Your task to perform on an android device: turn off location Image 0: 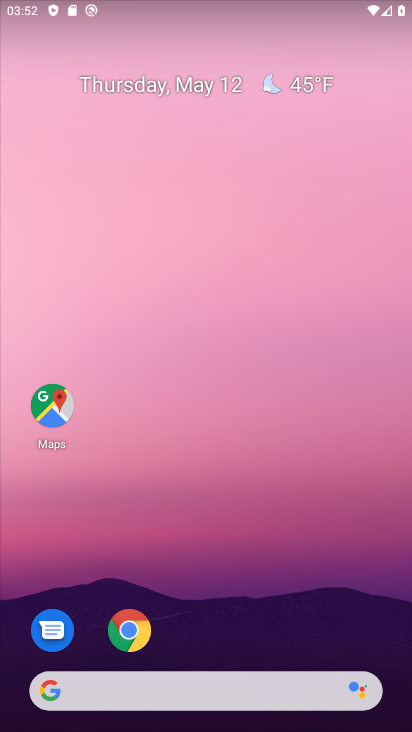
Step 0: drag from (252, 629) to (378, 87)
Your task to perform on an android device: turn off location Image 1: 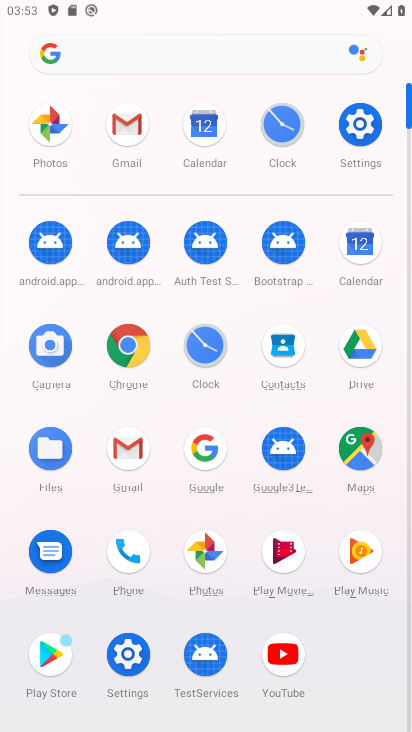
Step 1: click (125, 663)
Your task to perform on an android device: turn off location Image 2: 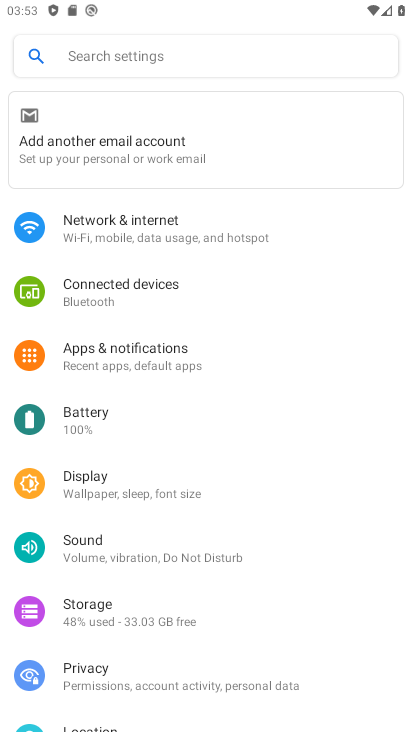
Step 2: drag from (149, 596) to (206, 230)
Your task to perform on an android device: turn off location Image 3: 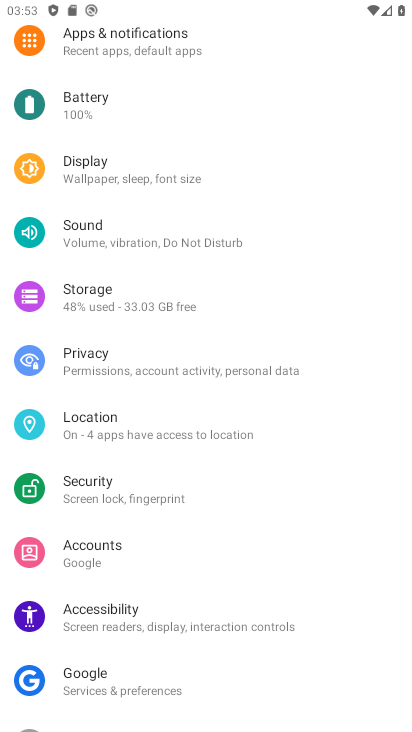
Step 3: click (152, 434)
Your task to perform on an android device: turn off location Image 4: 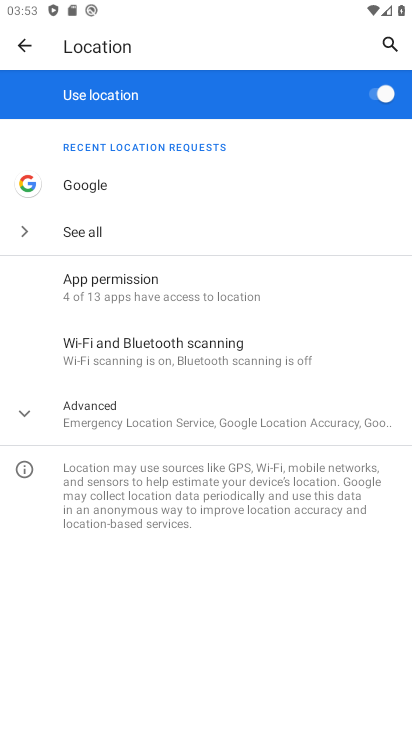
Step 4: click (356, 102)
Your task to perform on an android device: turn off location Image 5: 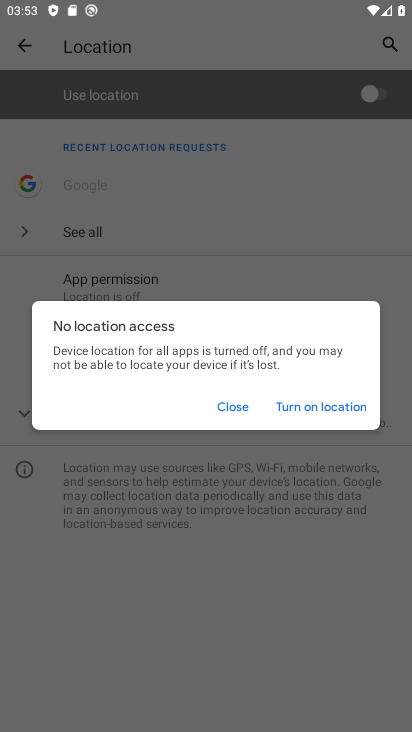
Step 5: click (234, 407)
Your task to perform on an android device: turn off location Image 6: 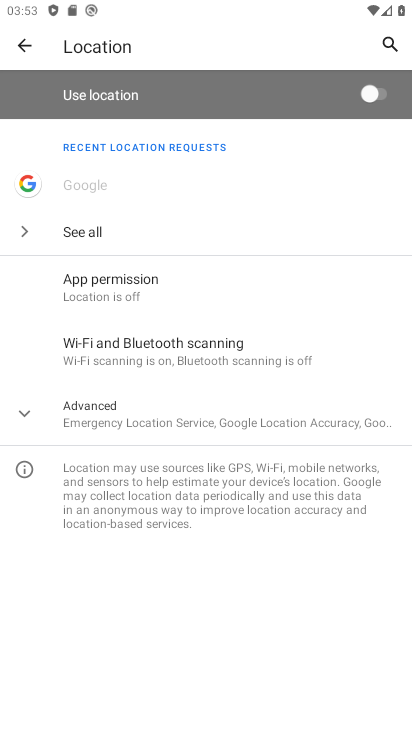
Step 6: task complete